Your task to perform on an android device: See recent photos Image 0: 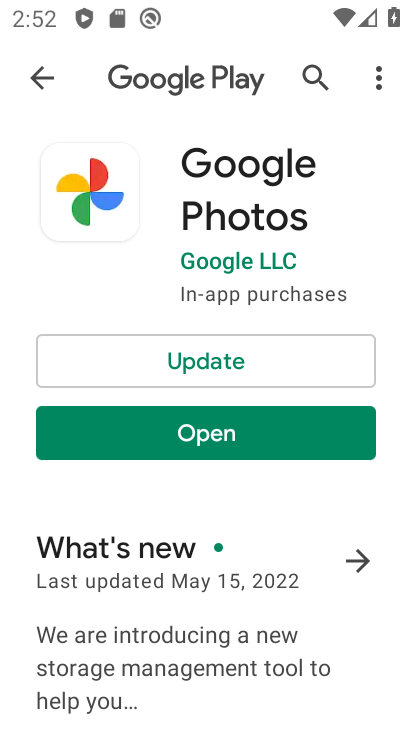
Step 0: press home button
Your task to perform on an android device: See recent photos Image 1: 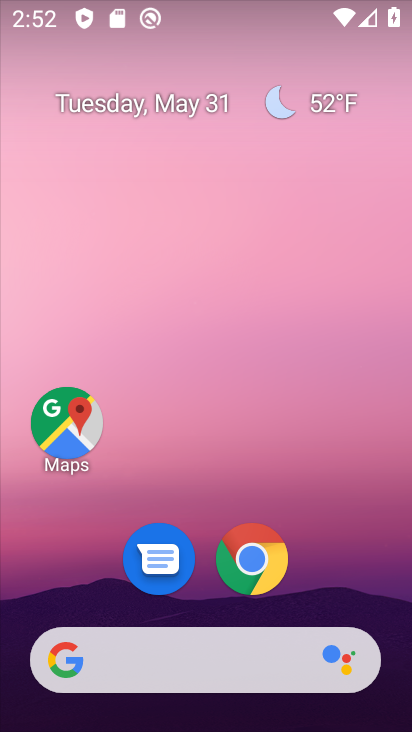
Step 1: drag from (226, 605) to (184, 275)
Your task to perform on an android device: See recent photos Image 2: 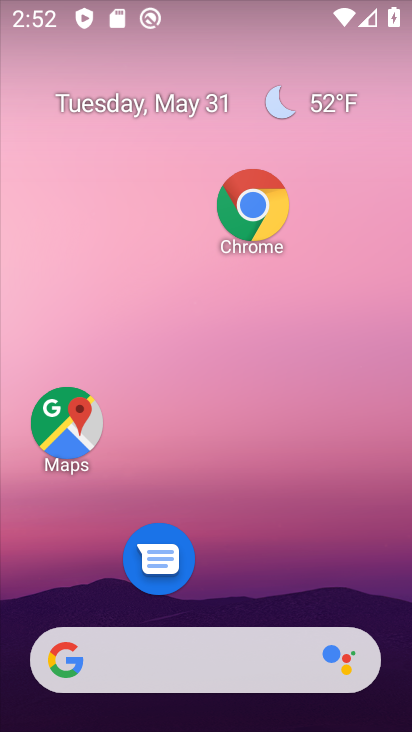
Step 2: drag from (217, 611) to (217, 198)
Your task to perform on an android device: See recent photos Image 3: 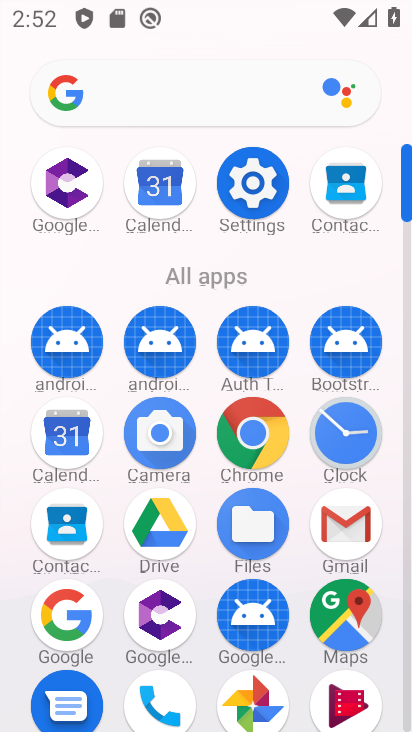
Step 3: drag from (203, 653) to (203, 534)
Your task to perform on an android device: See recent photos Image 4: 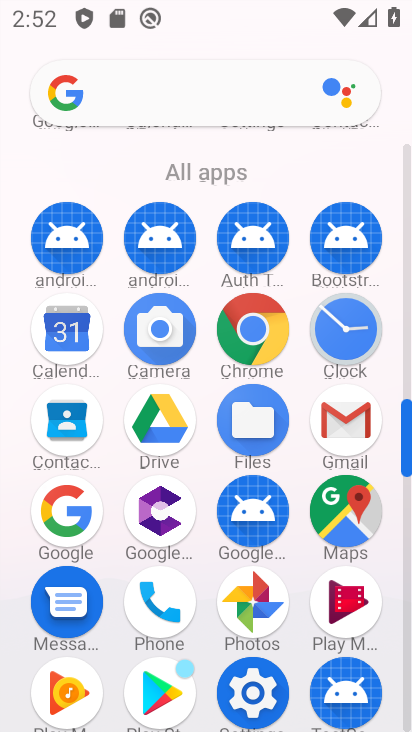
Step 4: click (245, 613)
Your task to perform on an android device: See recent photos Image 5: 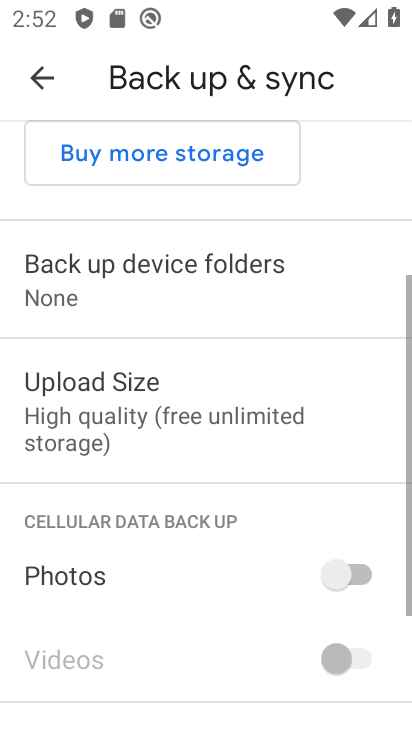
Step 5: click (46, 84)
Your task to perform on an android device: See recent photos Image 6: 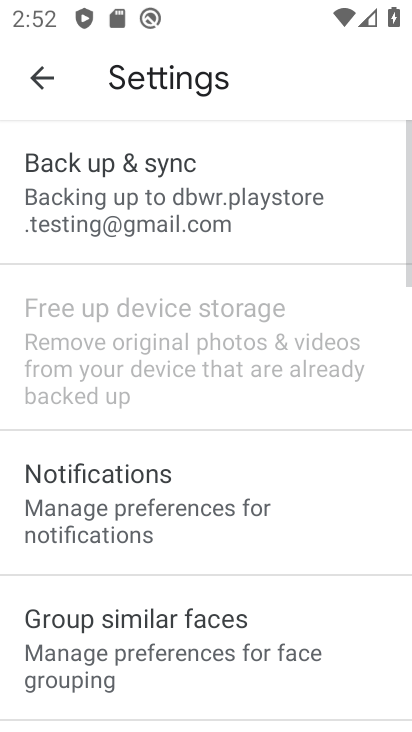
Step 6: click (41, 75)
Your task to perform on an android device: See recent photos Image 7: 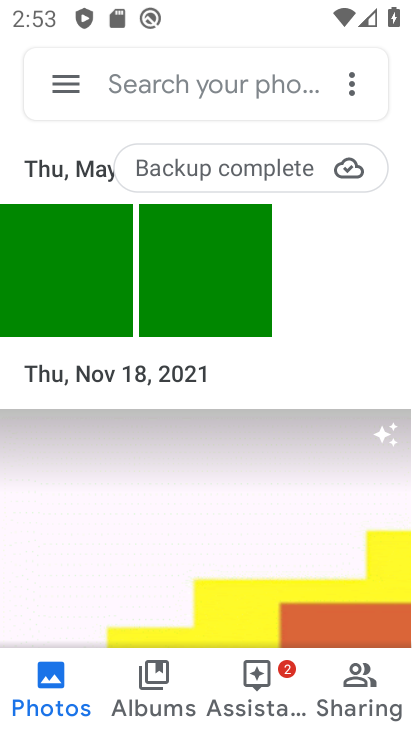
Step 7: task complete